Your task to perform on an android device: Open accessibility settings Image 0: 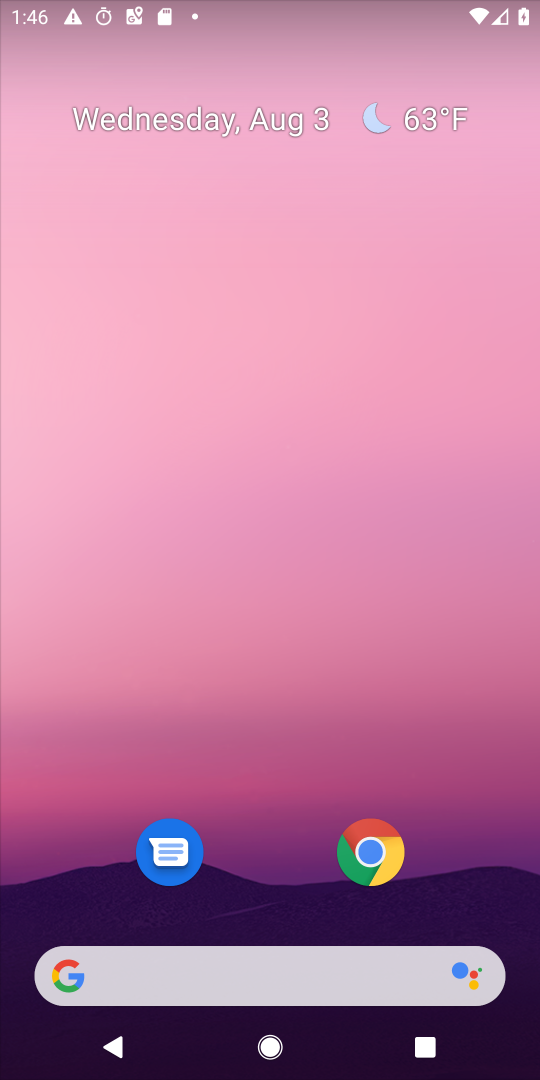
Step 0: drag from (465, 825) to (289, 129)
Your task to perform on an android device: Open accessibility settings Image 1: 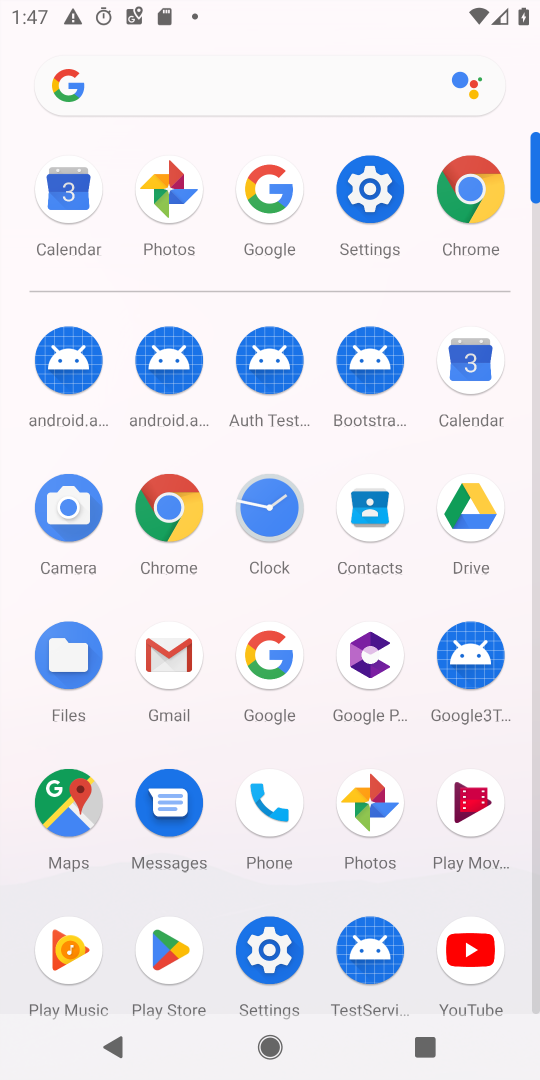
Step 1: click (284, 971)
Your task to perform on an android device: Open accessibility settings Image 2: 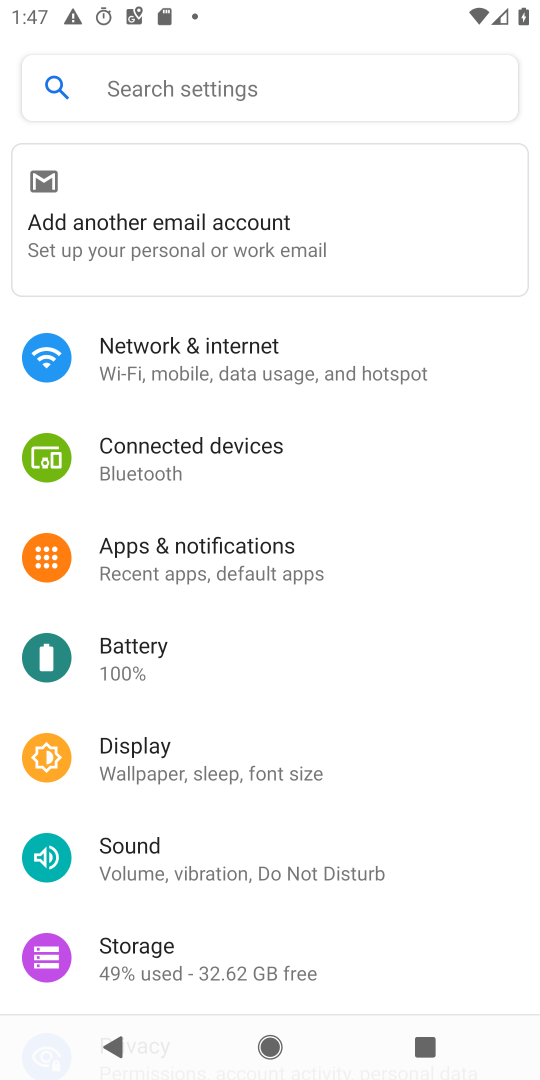
Step 2: drag from (193, 893) to (146, 233)
Your task to perform on an android device: Open accessibility settings Image 3: 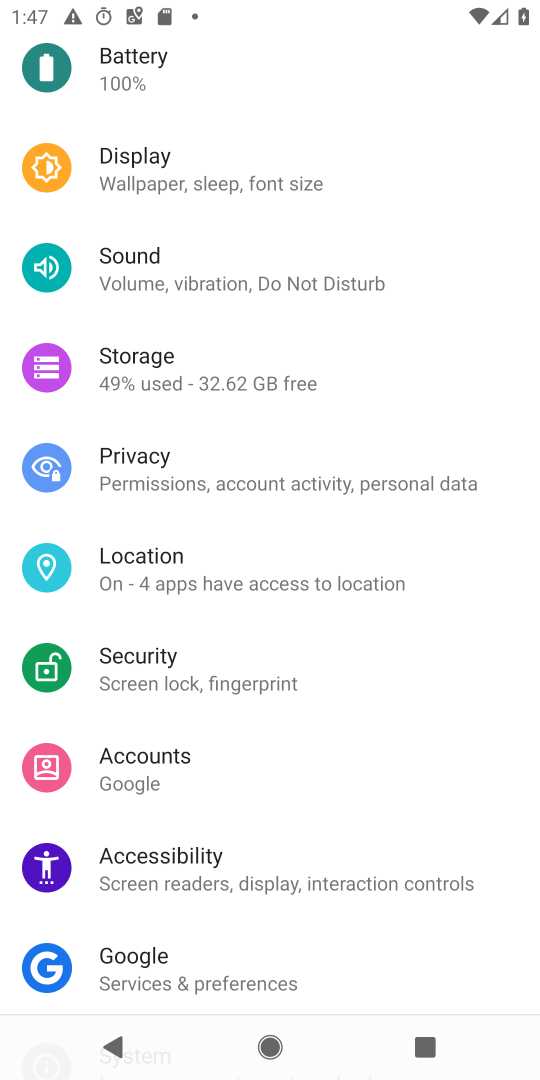
Step 3: click (214, 863)
Your task to perform on an android device: Open accessibility settings Image 4: 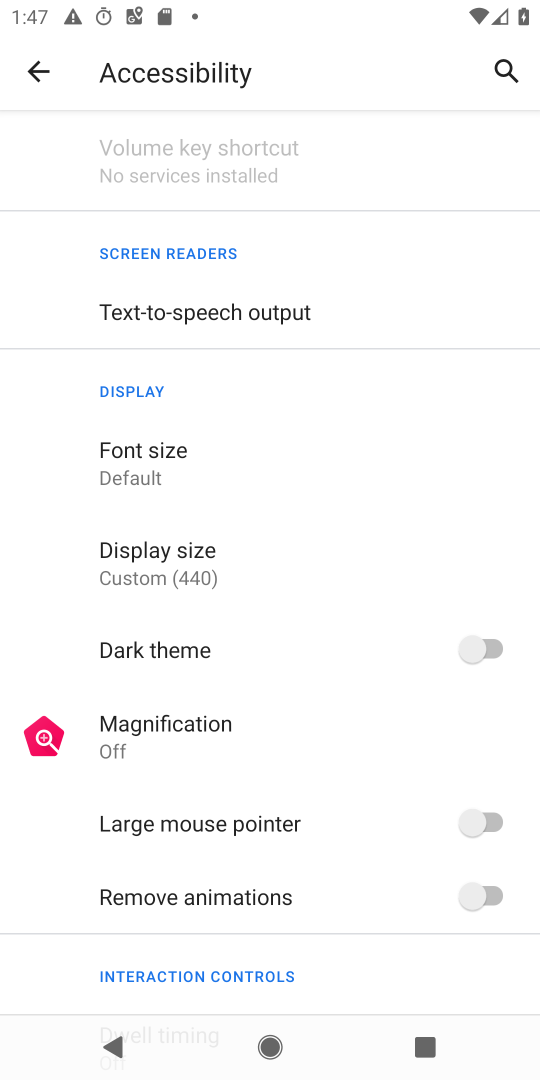
Step 4: task complete